Your task to perform on an android device: What's the weather today? Image 0: 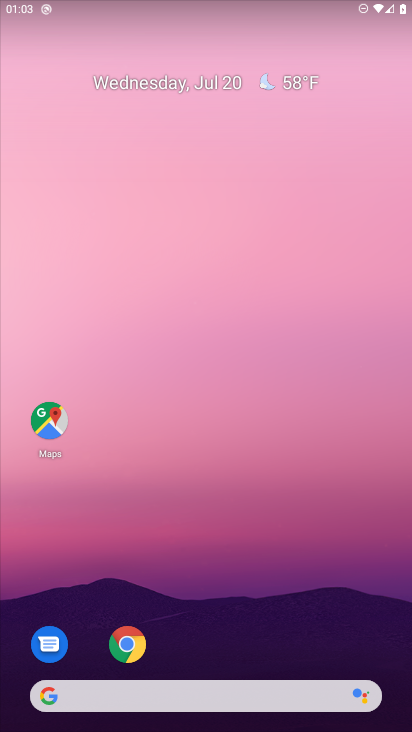
Step 0: click (126, 682)
Your task to perform on an android device: What's the weather today? Image 1: 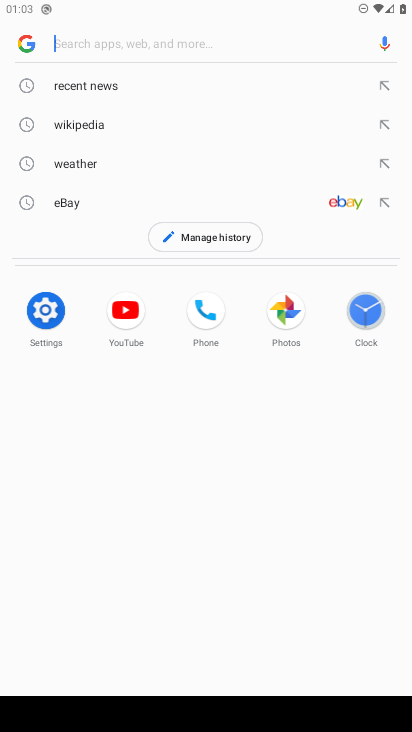
Step 1: type "What's the weather today?"
Your task to perform on an android device: What's the weather today? Image 2: 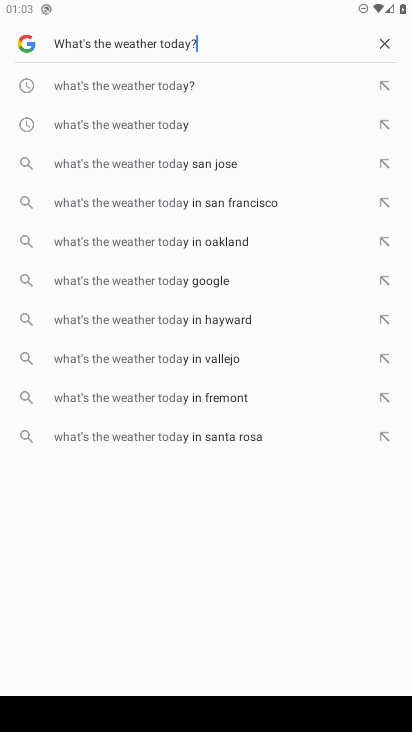
Step 2: type ""
Your task to perform on an android device: What's the weather today? Image 3: 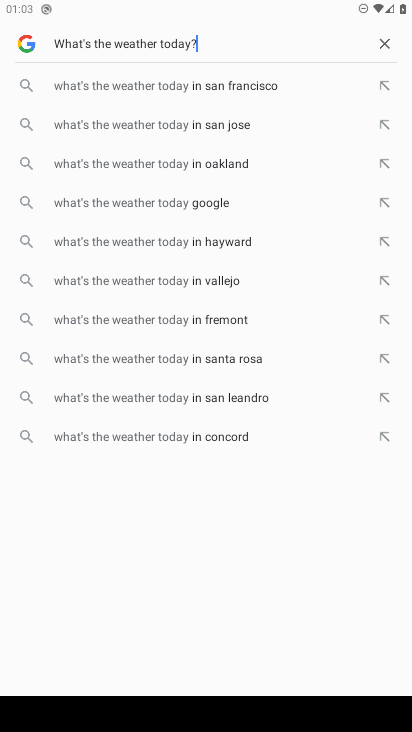
Step 3: type ""
Your task to perform on an android device: What's the weather today? Image 4: 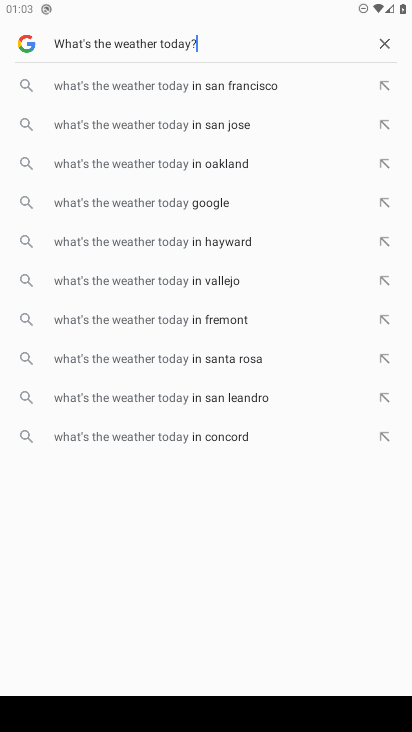
Step 4: type ""
Your task to perform on an android device: What's the weather today? Image 5: 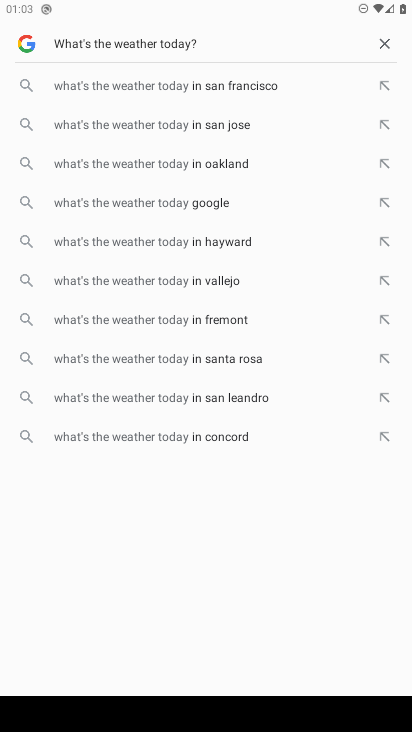
Step 5: task complete